Your task to perform on an android device: Go to Yahoo.com Image 0: 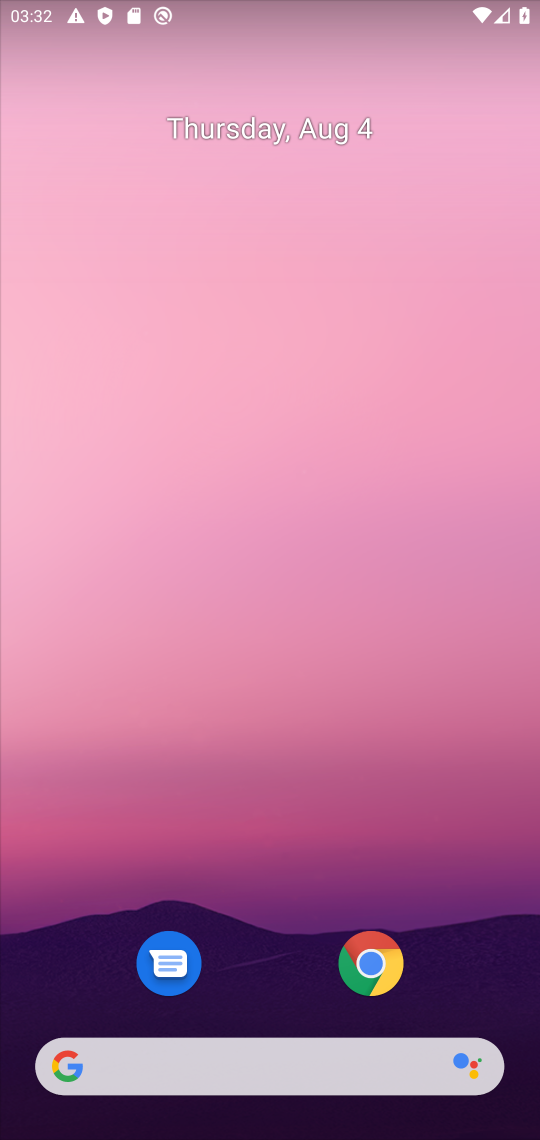
Step 0: click (368, 965)
Your task to perform on an android device: Go to Yahoo.com Image 1: 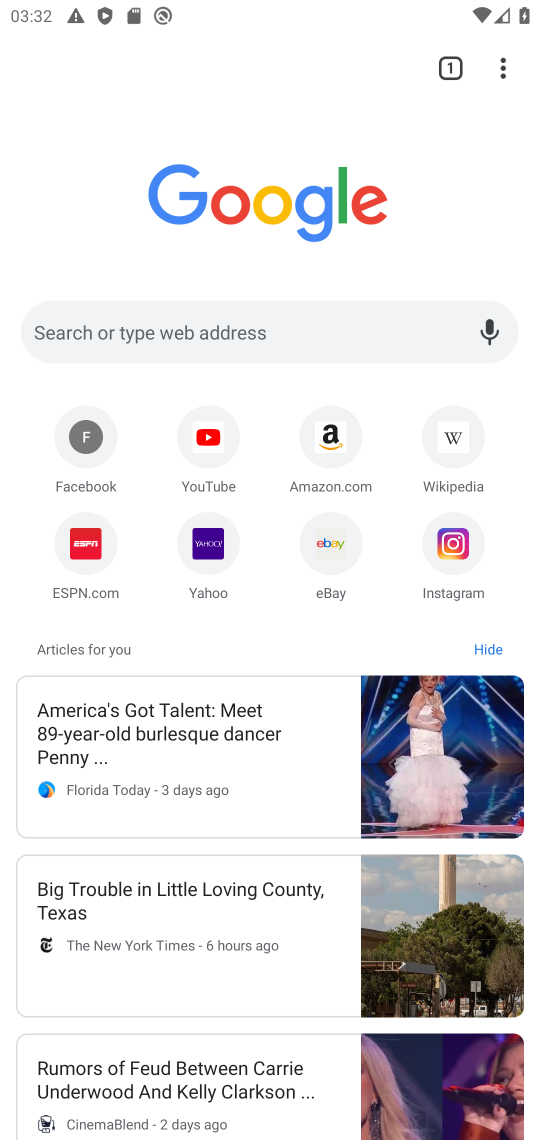
Step 1: click (200, 552)
Your task to perform on an android device: Go to Yahoo.com Image 2: 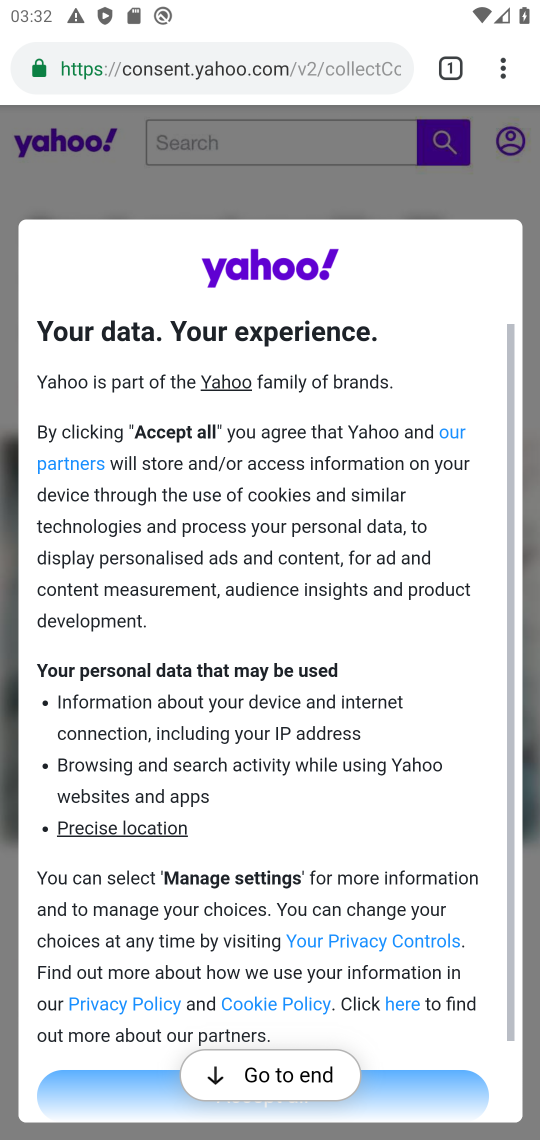
Step 2: task complete